Your task to perform on an android device: turn off data saver in the chrome app Image 0: 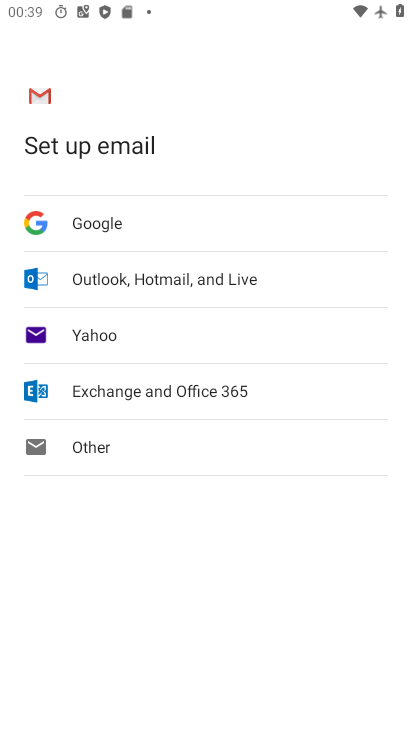
Step 0: press home button
Your task to perform on an android device: turn off data saver in the chrome app Image 1: 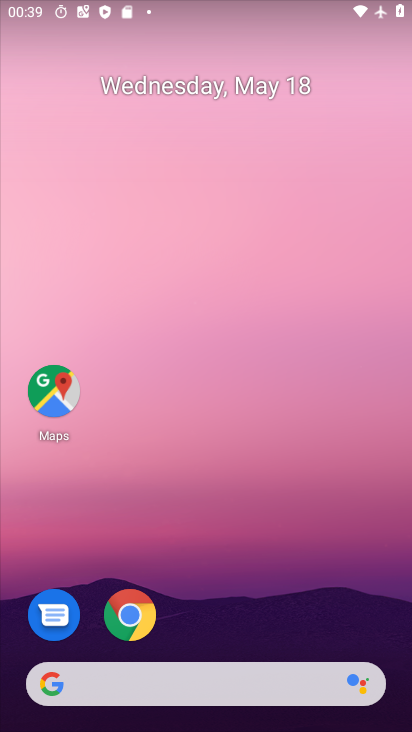
Step 1: click (141, 596)
Your task to perform on an android device: turn off data saver in the chrome app Image 2: 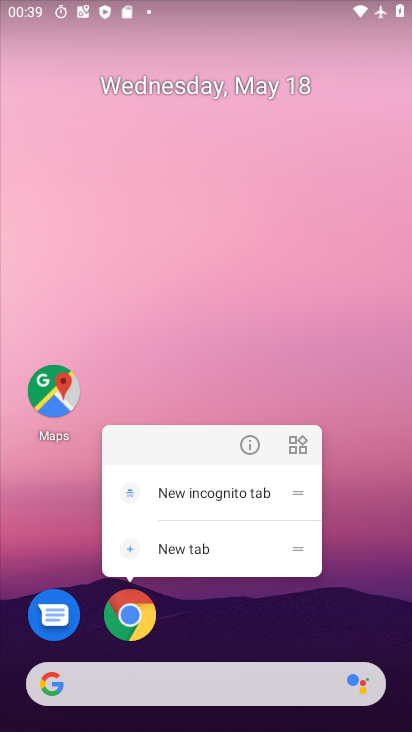
Step 2: click (139, 601)
Your task to perform on an android device: turn off data saver in the chrome app Image 3: 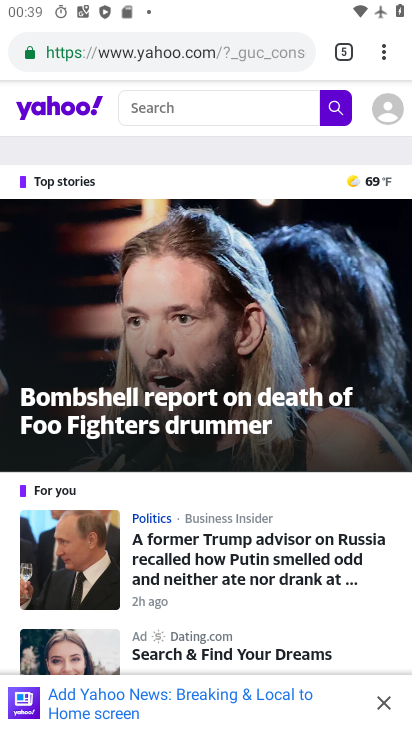
Step 3: click (378, 48)
Your task to perform on an android device: turn off data saver in the chrome app Image 4: 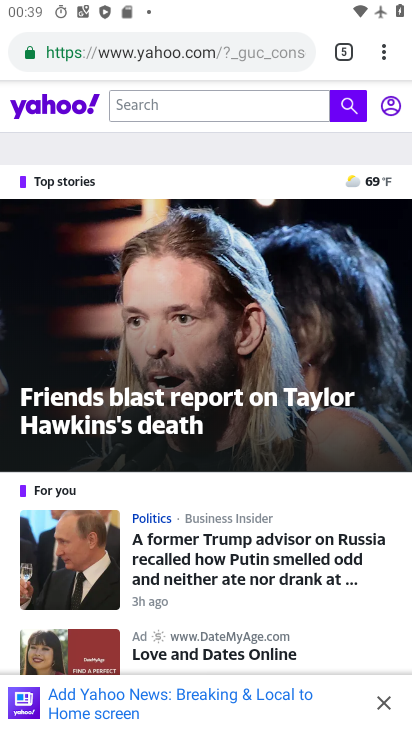
Step 4: drag from (378, 44) to (221, 613)
Your task to perform on an android device: turn off data saver in the chrome app Image 5: 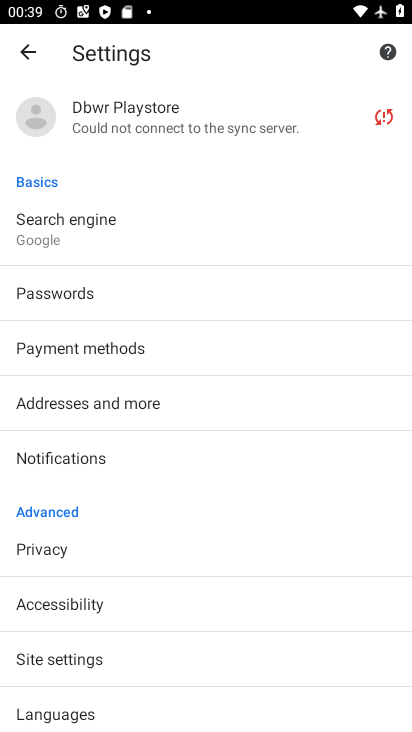
Step 5: drag from (159, 650) to (197, 395)
Your task to perform on an android device: turn off data saver in the chrome app Image 6: 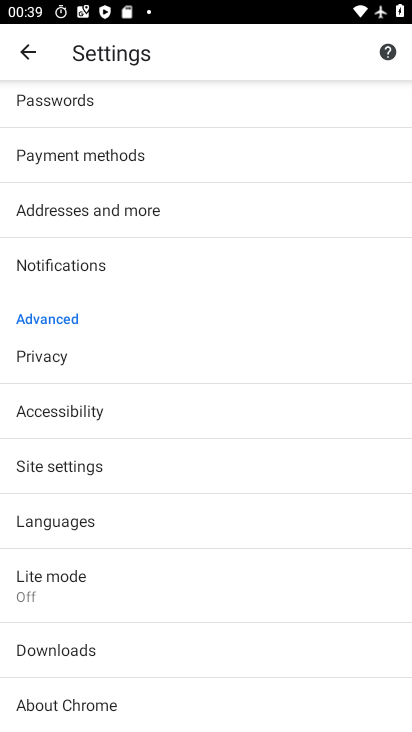
Step 6: click (76, 580)
Your task to perform on an android device: turn off data saver in the chrome app Image 7: 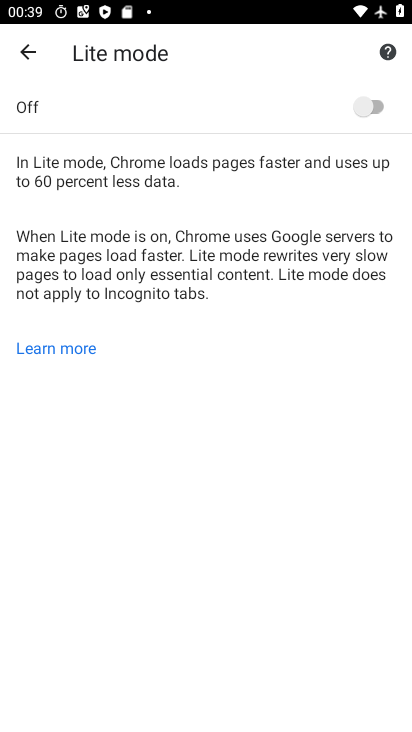
Step 7: task complete